Your task to perform on an android device: Open internet settings Image 0: 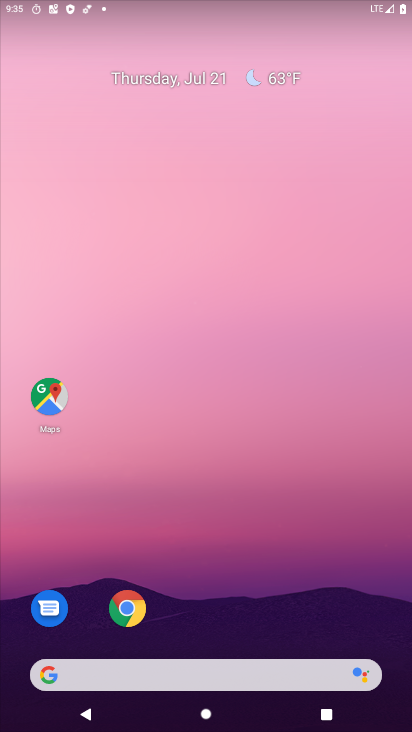
Step 0: drag from (192, 637) to (180, 164)
Your task to perform on an android device: Open internet settings Image 1: 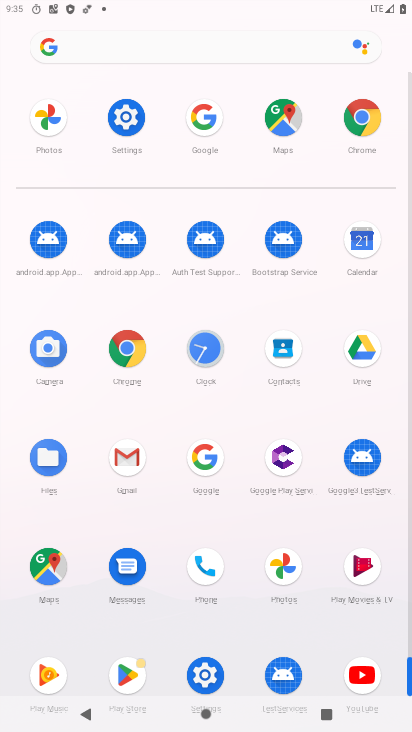
Step 1: click (130, 117)
Your task to perform on an android device: Open internet settings Image 2: 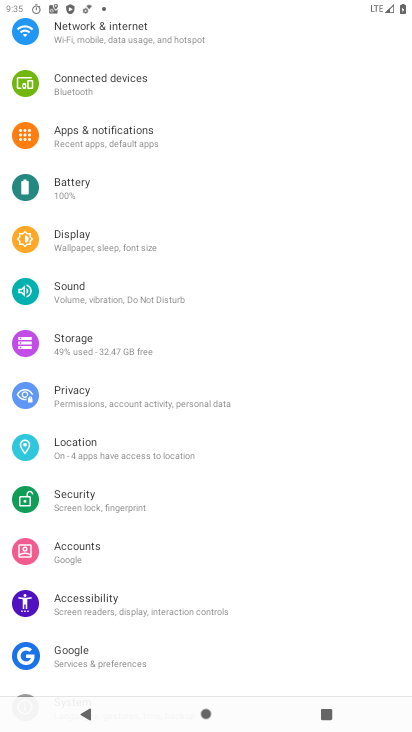
Step 2: drag from (129, 199) to (98, 463)
Your task to perform on an android device: Open internet settings Image 3: 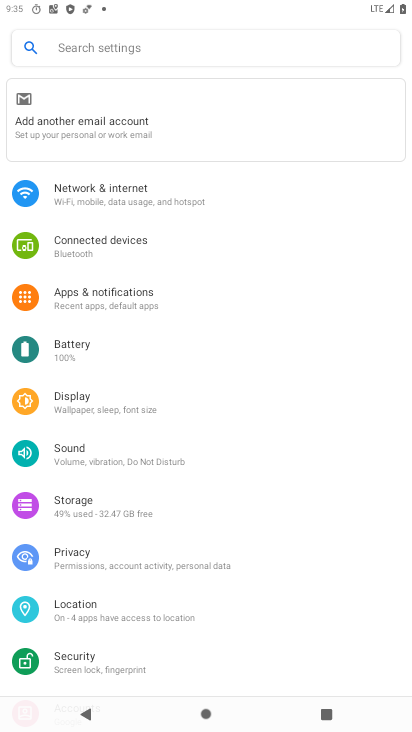
Step 3: click (136, 195)
Your task to perform on an android device: Open internet settings Image 4: 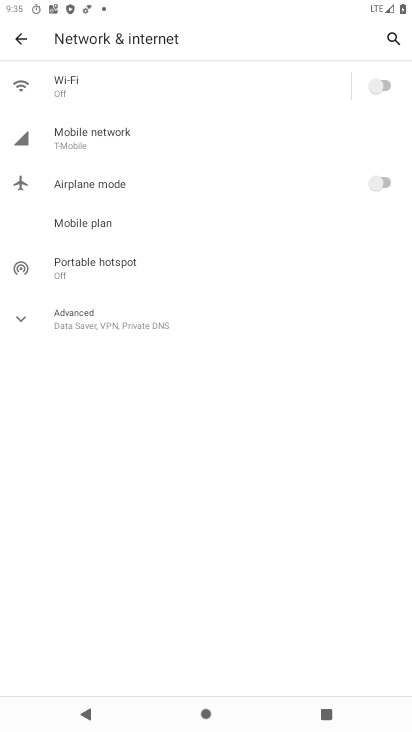
Step 4: click (113, 142)
Your task to perform on an android device: Open internet settings Image 5: 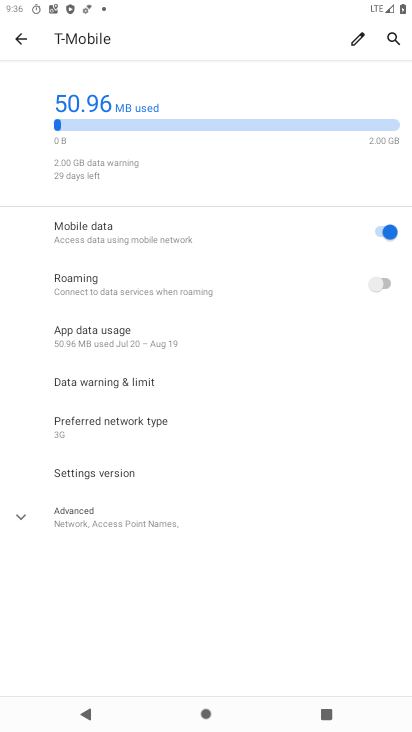
Step 5: click (116, 337)
Your task to perform on an android device: Open internet settings Image 6: 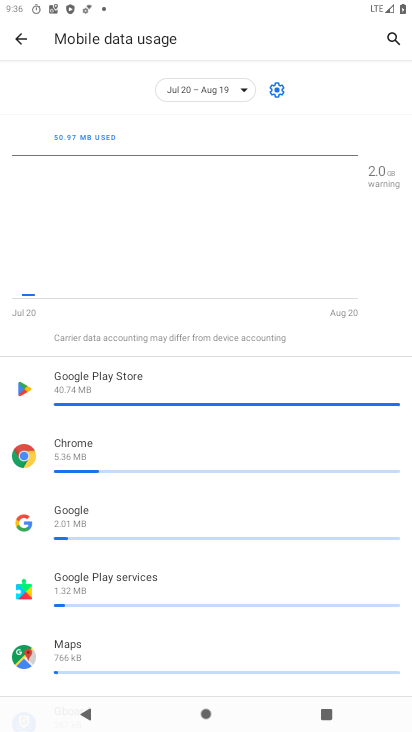
Step 6: task complete